Your task to perform on an android device: make emails show in primary in the gmail app Image 0: 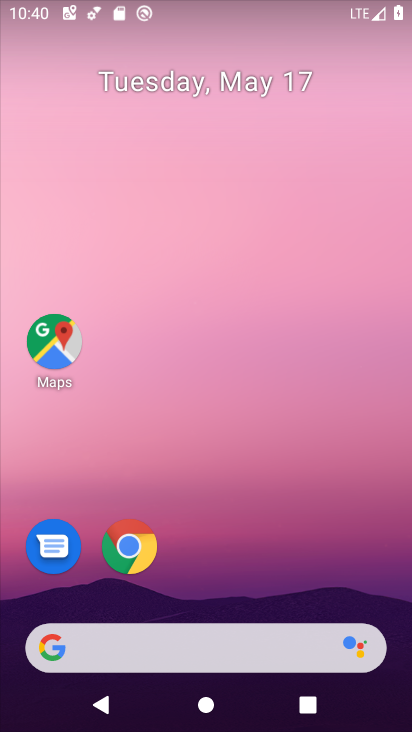
Step 0: drag from (245, 592) to (297, 0)
Your task to perform on an android device: make emails show in primary in the gmail app Image 1: 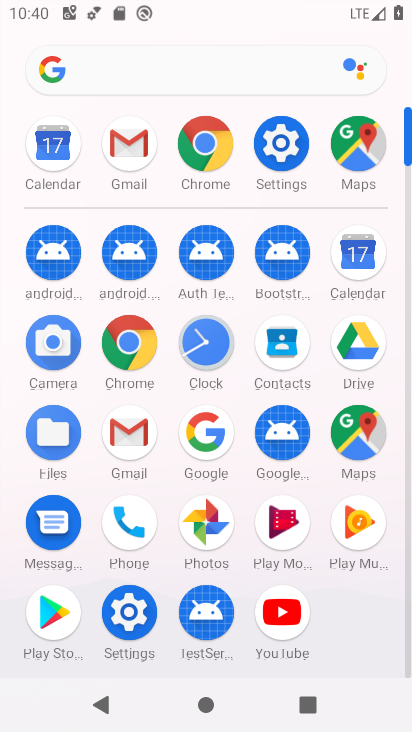
Step 1: click (127, 435)
Your task to perform on an android device: make emails show in primary in the gmail app Image 2: 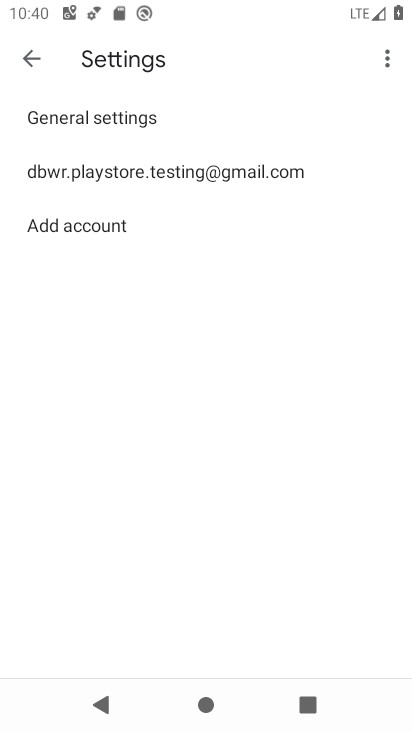
Step 2: click (118, 169)
Your task to perform on an android device: make emails show in primary in the gmail app Image 3: 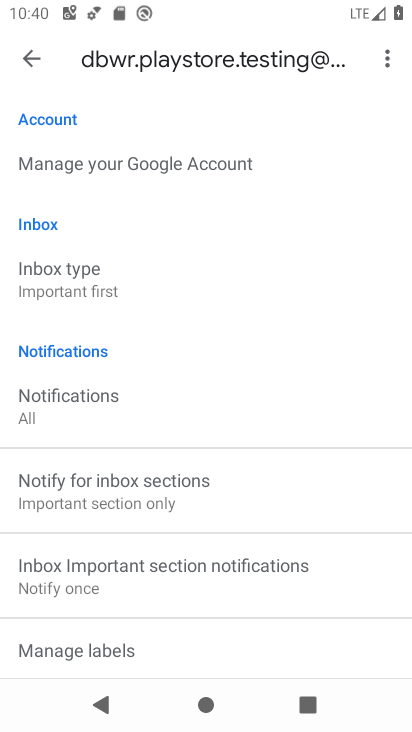
Step 3: click (98, 302)
Your task to perform on an android device: make emails show in primary in the gmail app Image 4: 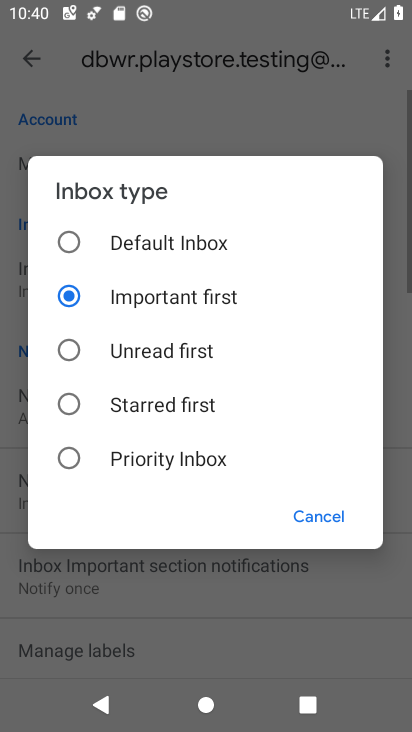
Step 4: click (131, 246)
Your task to perform on an android device: make emails show in primary in the gmail app Image 5: 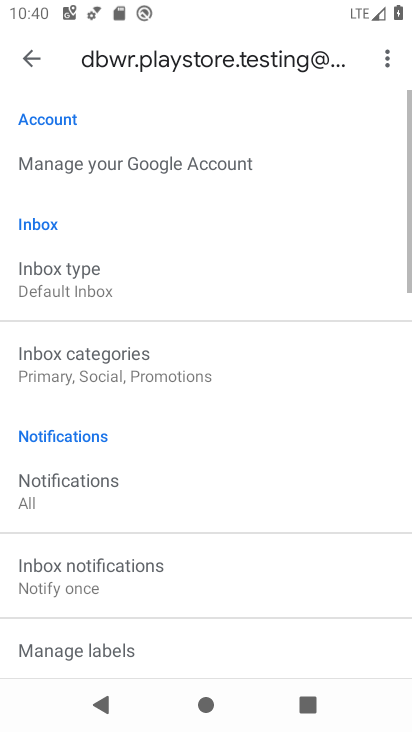
Step 5: click (119, 376)
Your task to perform on an android device: make emails show in primary in the gmail app Image 6: 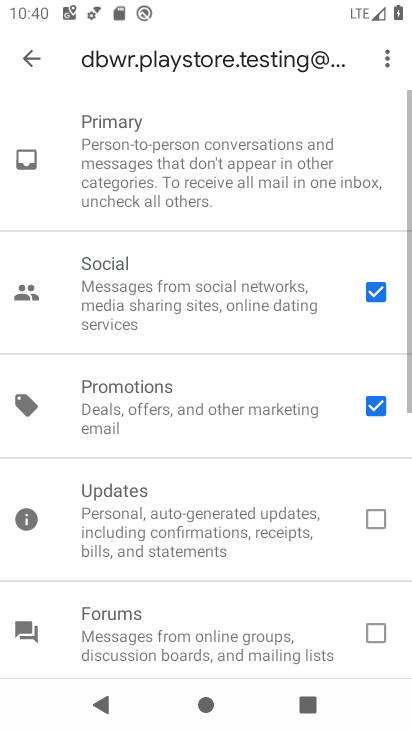
Step 6: click (381, 277)
Your task to perform on an android device: make emails show in primary in the gmail app Image 7: 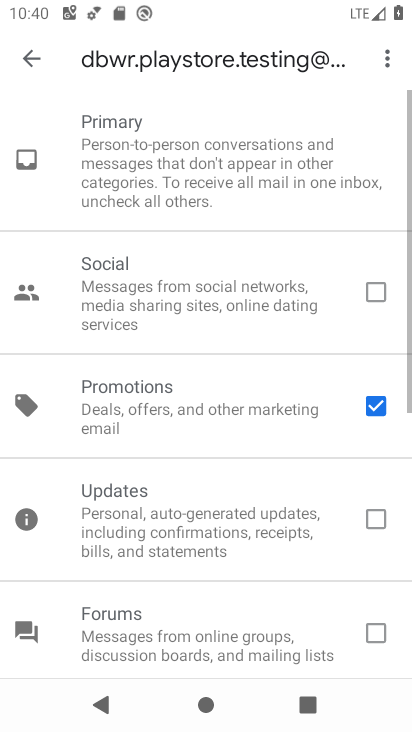
Step 7: click (378, 414)
Your task to perform on an android device: make emails show in primary in the gmail app Image 8: 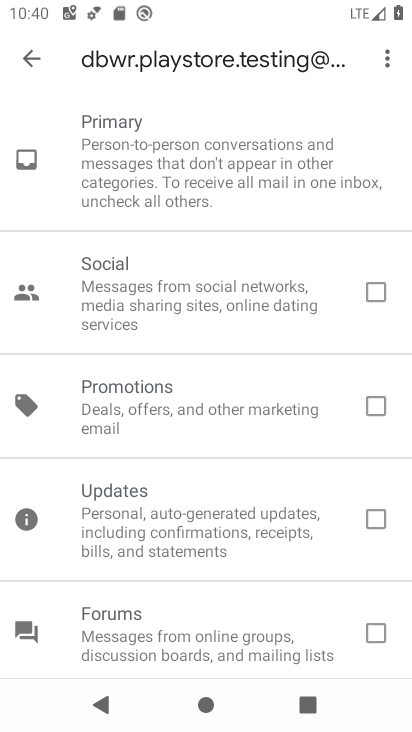
Step 8: task complete